Your task to perform on an android device: Open CNN.com Image 0: 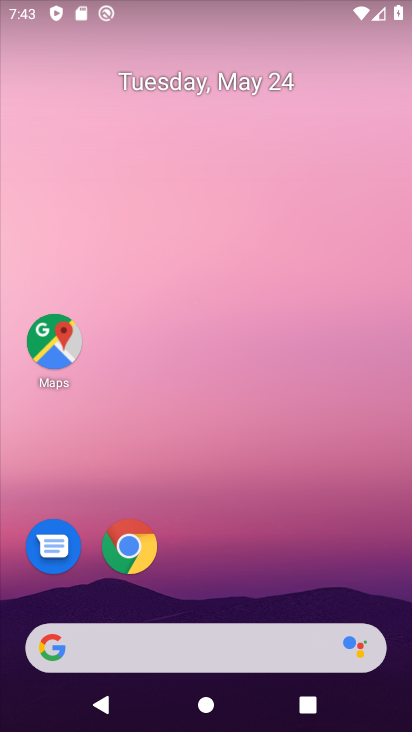
Step 0: click (283, 650)
Your task to perform on an android device: Open CNN.com Image 1: 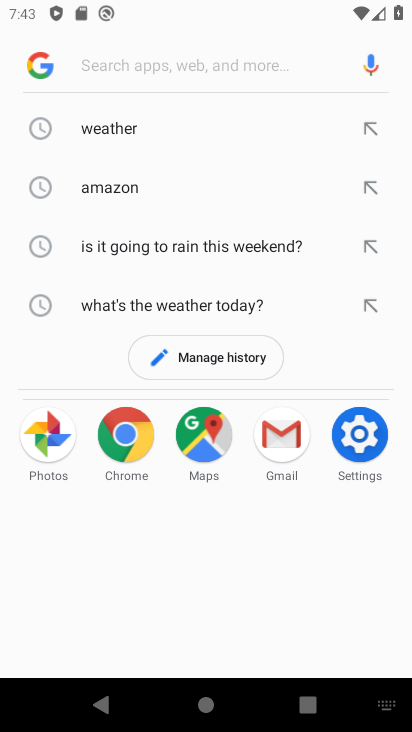
Step 1: type "cnn.com"
Your task to perform on an android device: Open CNN.com Image 2: 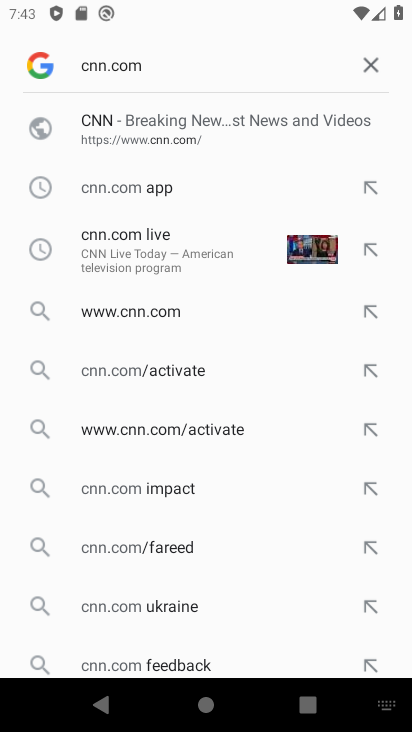
Step 2: click (111, 128)
Your task to perform on an android device: Open CNN.com Image 3: 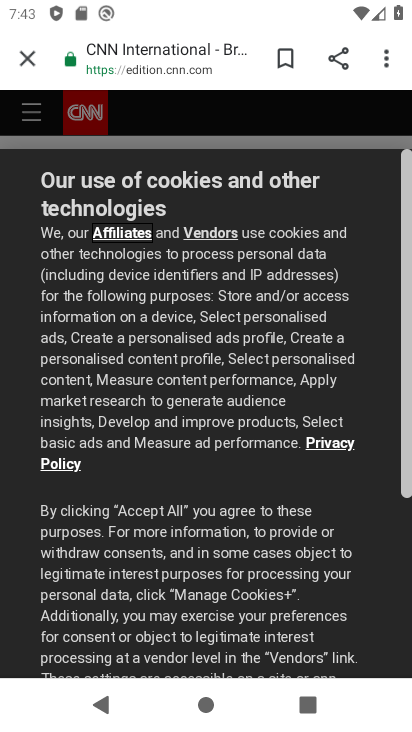
Step 3: drag from (290, 220) to (260, 548)
Your task to perform on an android device: Open CNN.com Image 4: 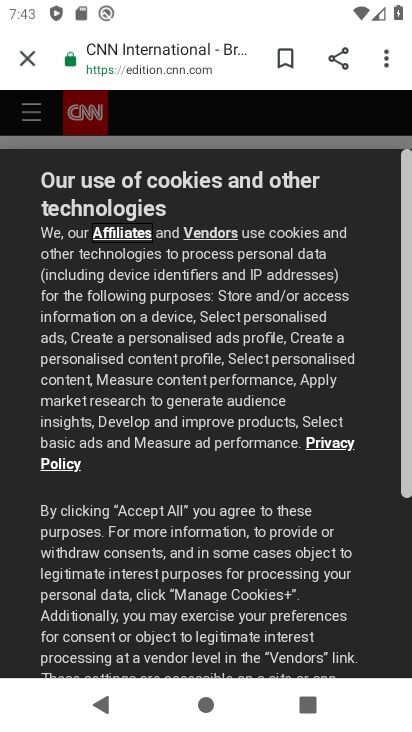
Step 4: drag from (253, 544) to (258, 184)
Your task to perform on an android device: Open CNN.com Image 5: 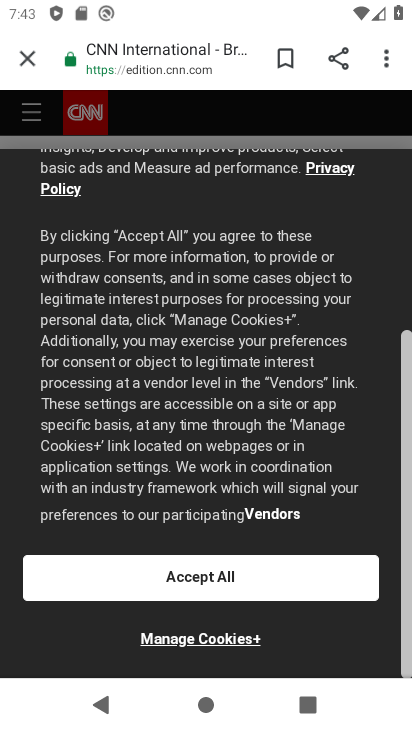
Step 5: click (246, 573)
Your task to perform on an android device: Open CNN.com Image 6: 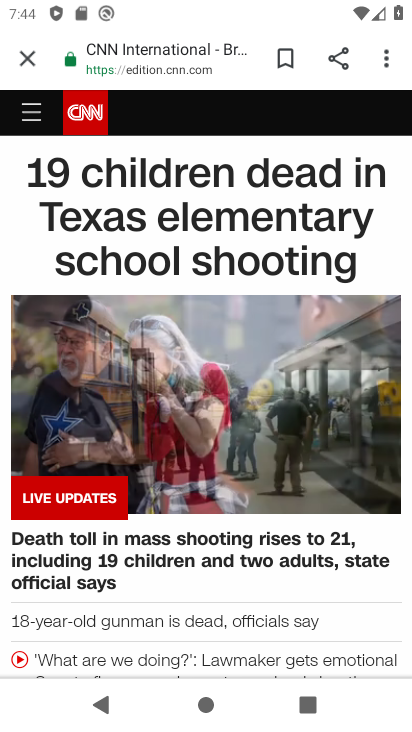
Step 6: task complete